Your task to perform on an android device: Set the phone to "Do not disturb". Image 0: 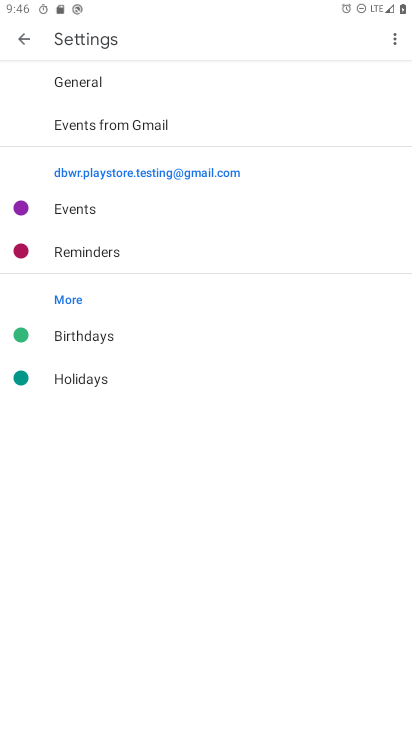
Step 0: press home button
Your task to perform on an android device: Set the phone to "Do not disturb". Image 1: 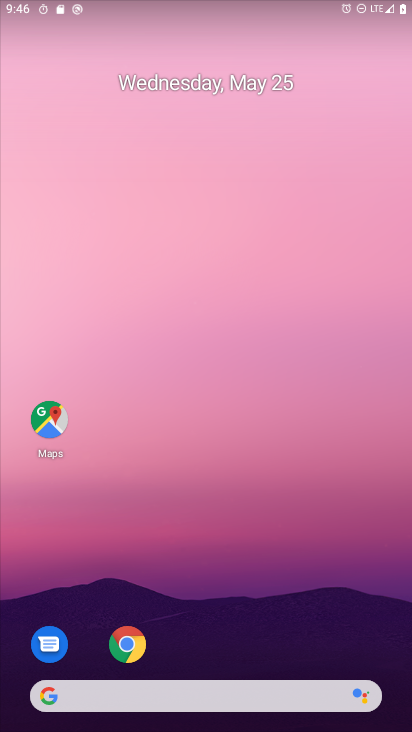
Step 1: task complete